Your task to perform on an android device: set the timer Image 0: 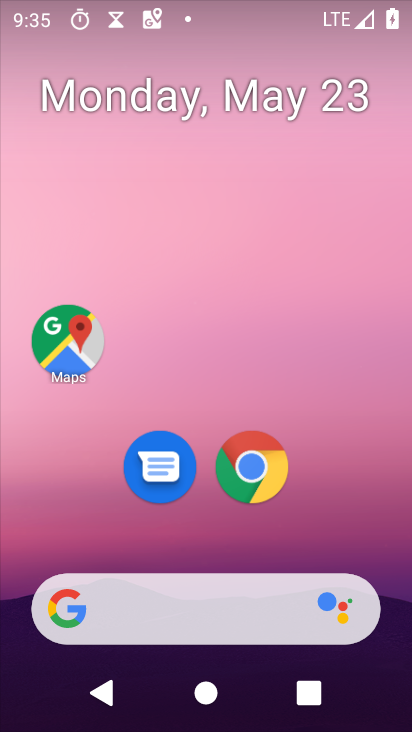
Step 0: drag from (339, 537) to (239, 25)
Your task to perform on an android device: set the timer Image 1: 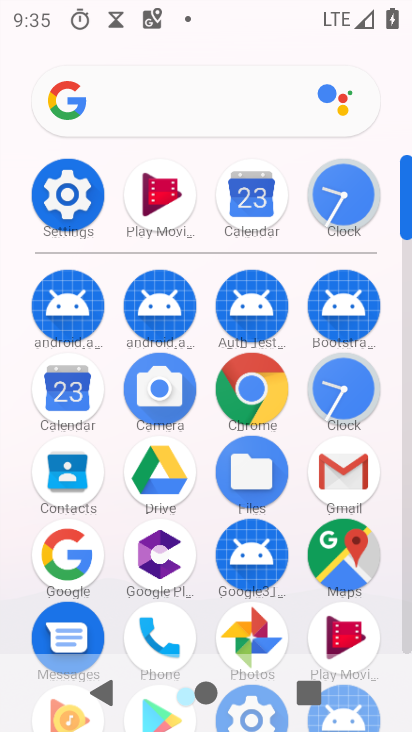
Step 1: click (62, 213)
Your task to perform on an android device: set the timer Image 2: 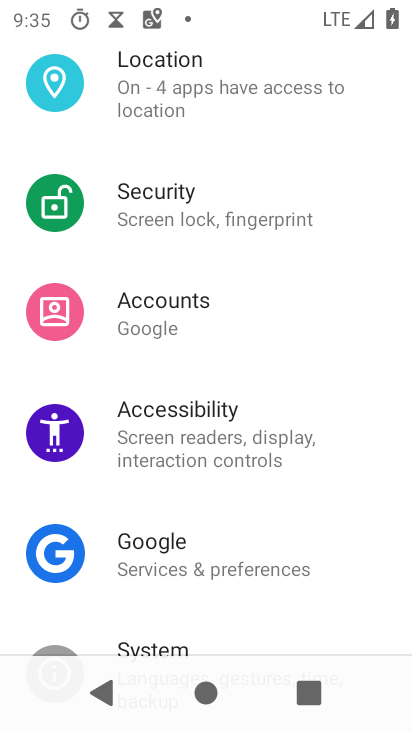
Step 2: drag from (219, 518) to (219, 184)
Your task to perform on an android device: set the timer Image 3: 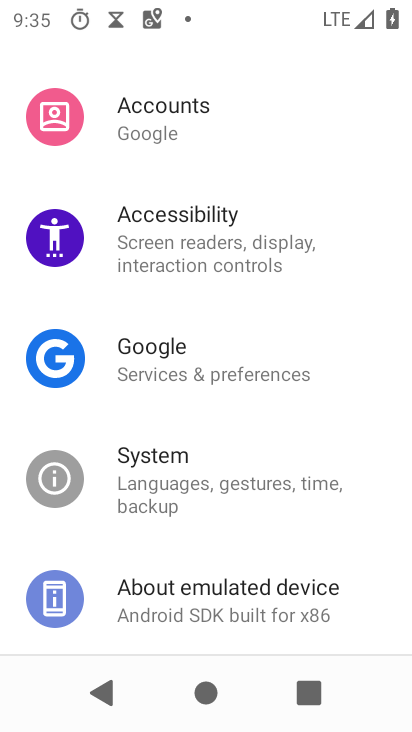
Step 3: press home button
Your task to perform on an android device: set the timer Image 4: 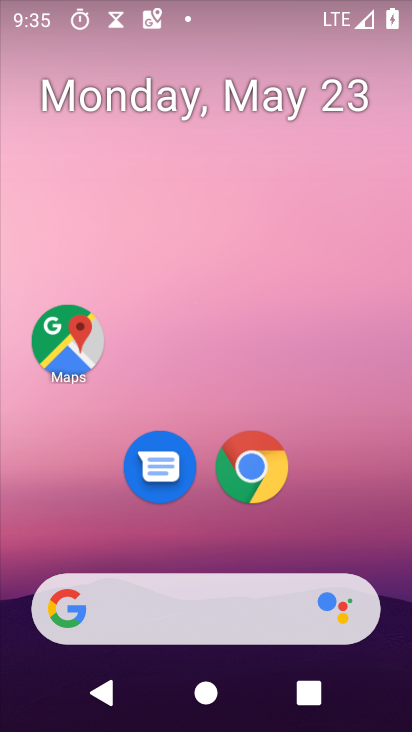
Step 4: drag from (300, 539) to (222, 25)
Your task to perform on an android device: set the timer Image 5: 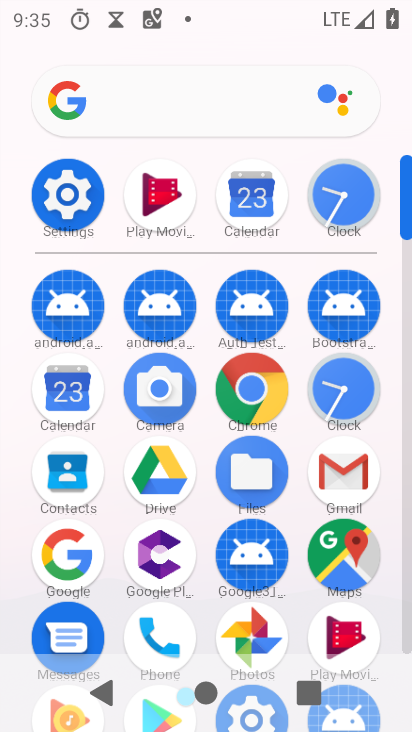
Step 5: click (335, 388)
Your task to perform on an android device: set the timer Image 6: 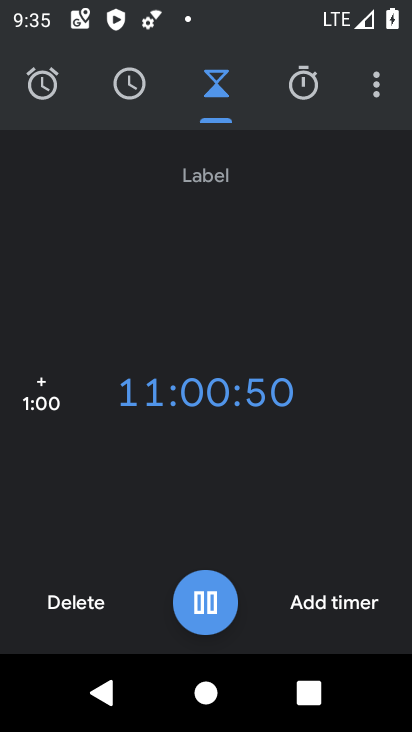
Step 6: click (216, 79)
Your task to perform on an android device: set the timer Image 7: 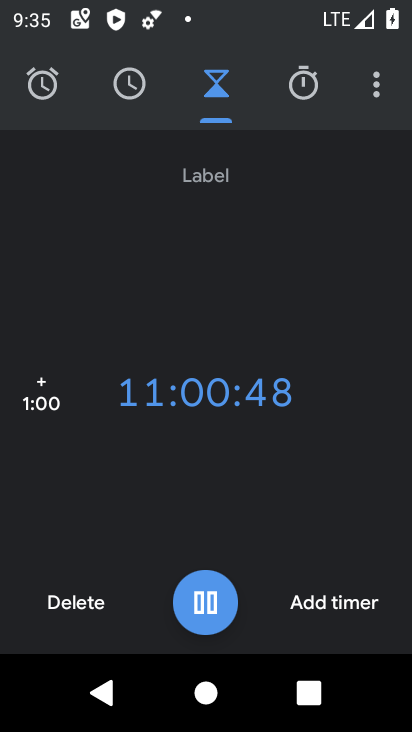
Step 7: click (76, 600)
Your task to perform on an android device: set the timer Image 8: 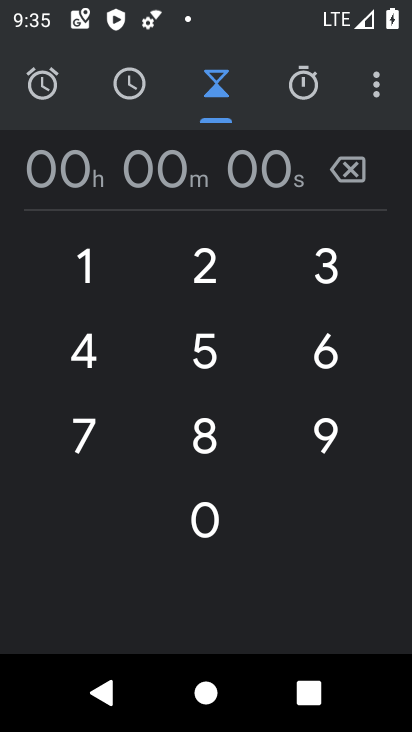
Step 8: click (101, 281)
Your task to perform on an android device: set the timer Image 9: 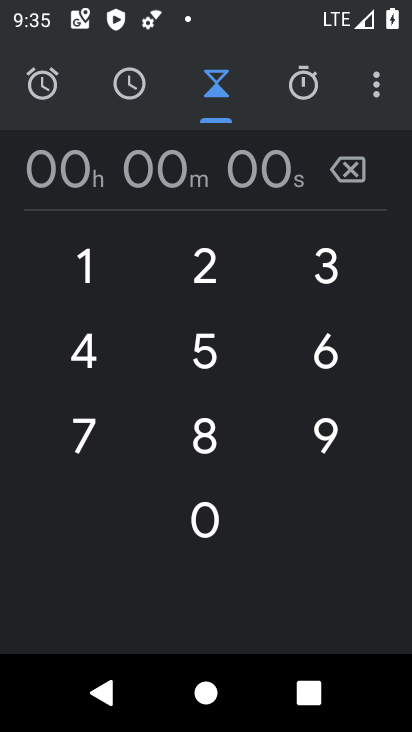
Step 9: click (101, 281)
Your task to perform on an android device: set the timer Image 10: 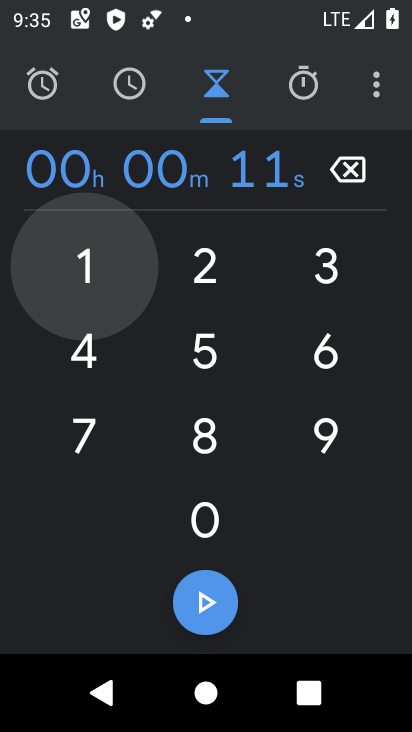
Step 10: click (101, 281)
Your task to perform on an android device: set the timer Image 11: 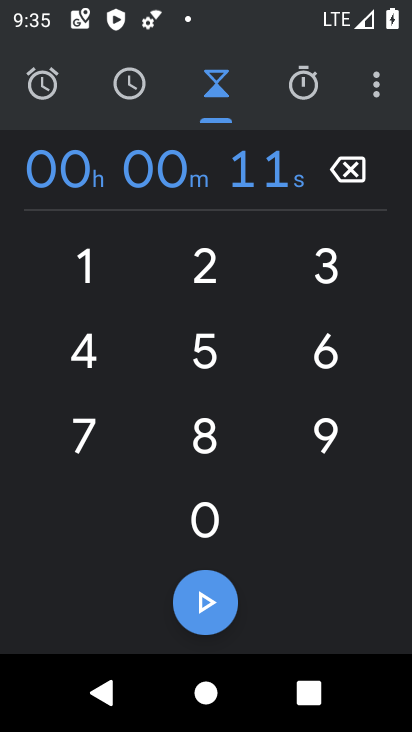
Step 11: click (101, 281)
Your task to perform on an android device: set the timer Image 12: 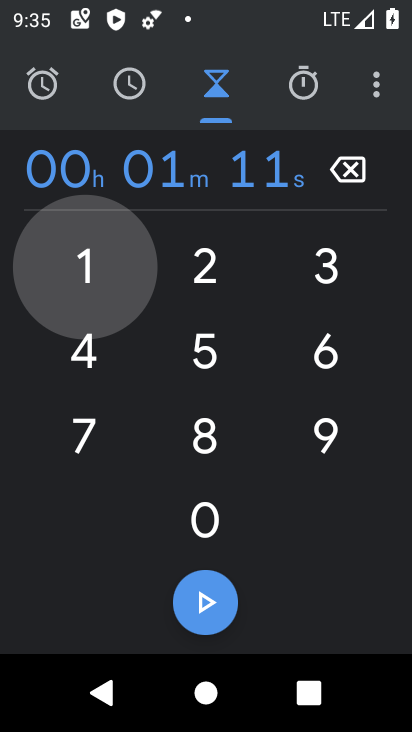
Step 12: click (101, 281)
Your task to perform on an android device: set the timer Image 13: 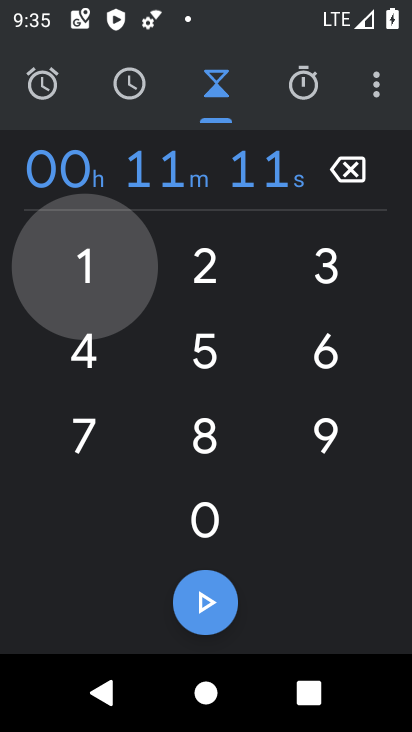
Step 13: click (101, 281)
Your task to perform on an android device: set the timer Image 14: 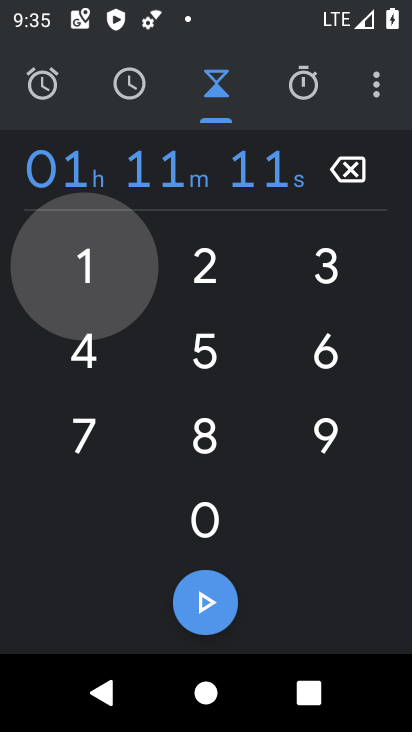
Step 14: click (101, 281)
Your task to perform on an android device: set the timer Image 15: 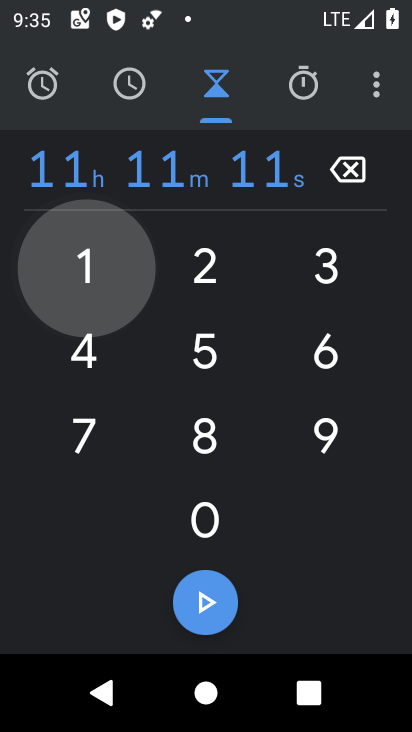
Step 15: click (101, 281)
Your task to perform on an android device: set the timer Image 16: 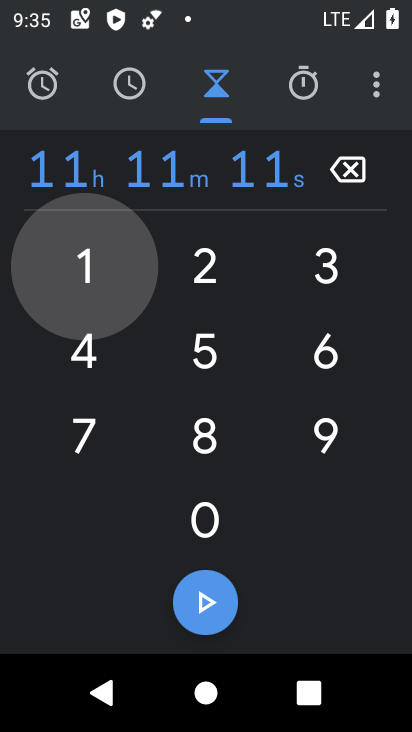
Step 16: click (101, 281)
Your task to perform on an android device: set the timer Image 17: 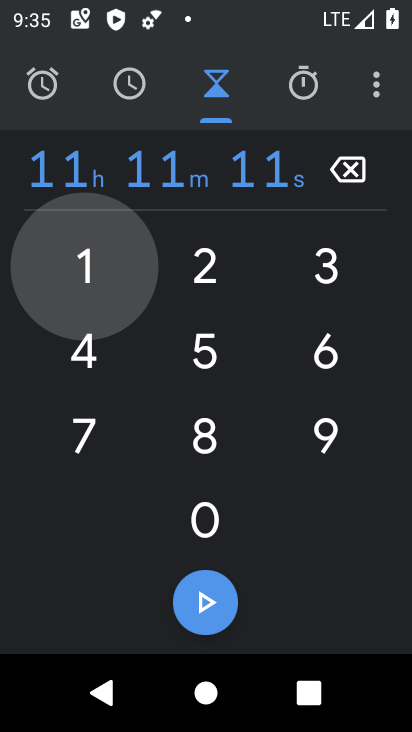
Step 17: click (101, 281)
Your task to perform on an android device: set the timer Image 18: 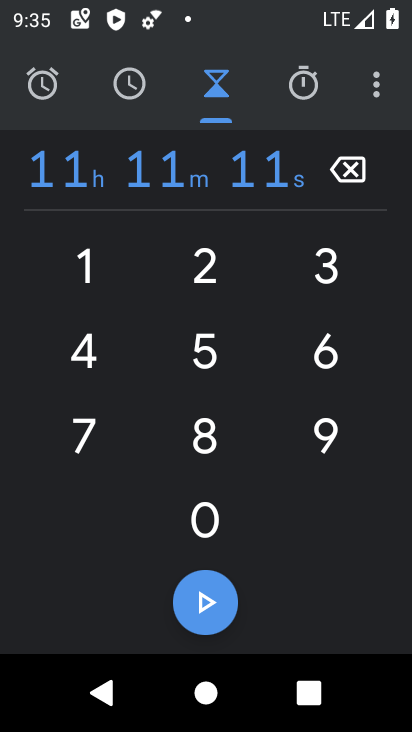
Step 18: click (202, 600)
Your task to perform on an android device: set the timer Image 19: 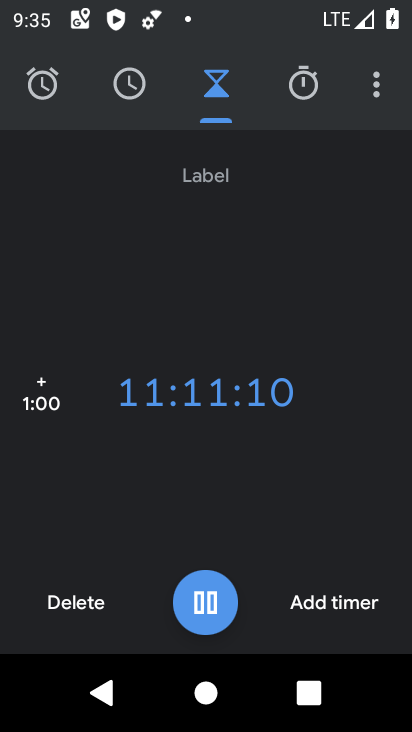
Step 19: task complete